Your task to perform on an android device: turn off location Image 0: 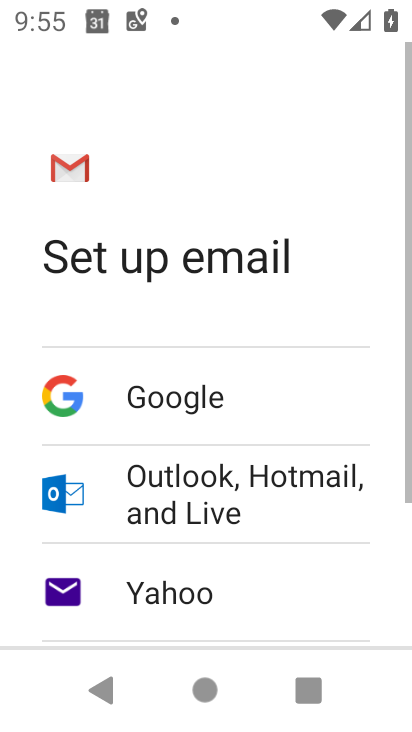
Step 0: press home button
Your task to perform on an android device: turn off location Image 1: 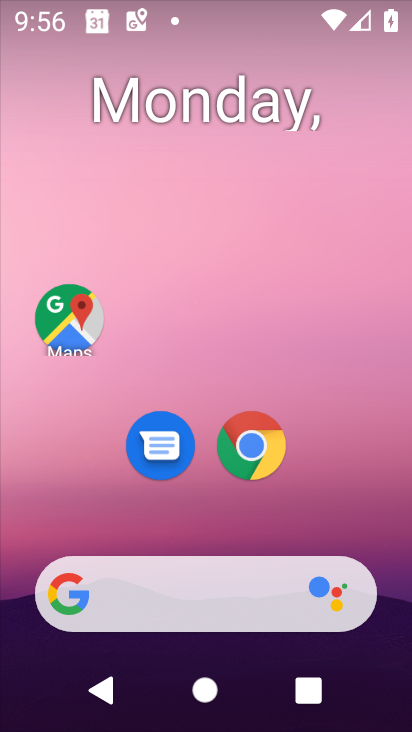
Step 1: drag from (281, 664) to (369, 131)
Your task to perform on an android device: turn off location Image 2: 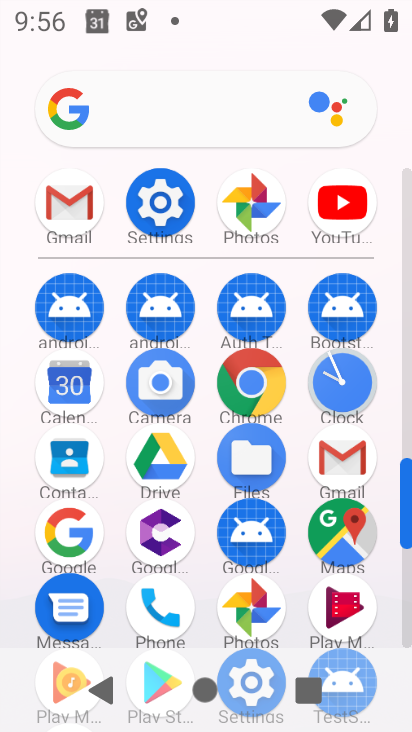
Step 2: click (146, 195)
Your task to perform on an android device: turn off location Image 3: 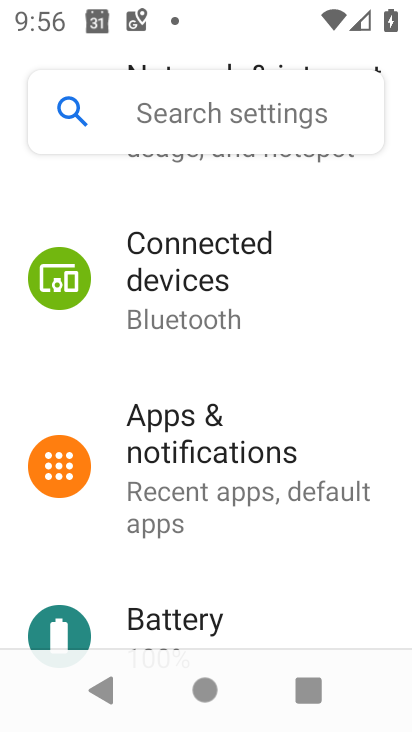
Step 3: drag from (274, 577) to (318, 19)
Your task to perform on an android device: turn off location Image 4: 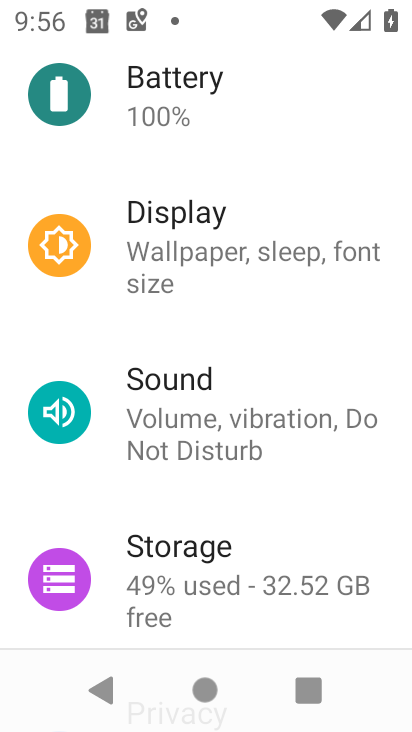
Step 4: drag from (226, 644) to (232, 55)
Your task to perform on an android device: turn off location Image 5: 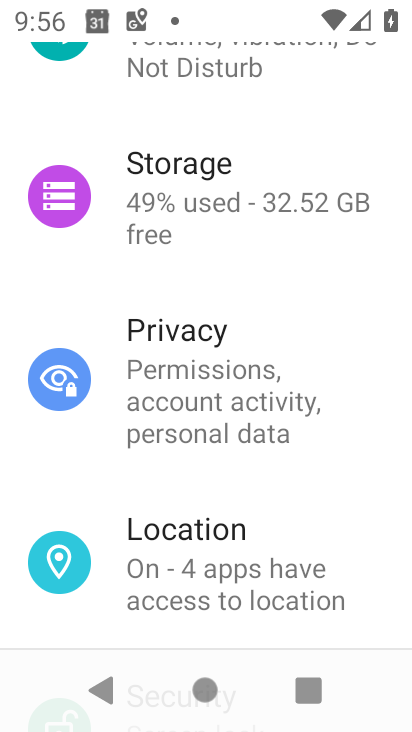
Step 5: click (246, 588)
Your task to perform on an android device: turn off location Image 6: 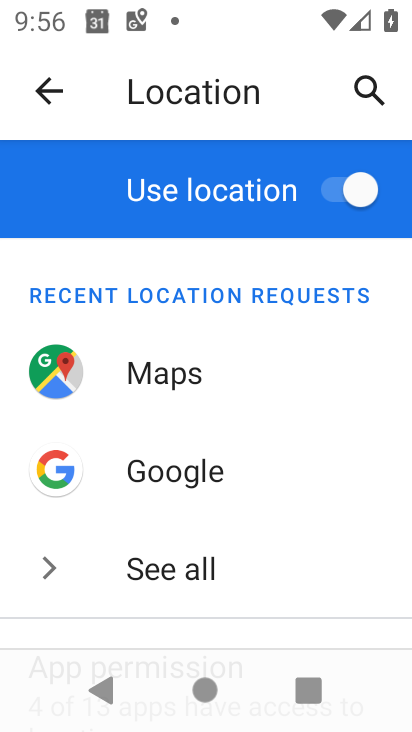
Step 6: click (366, 194)
Your task to perform on an android device: turn off location Image 7: 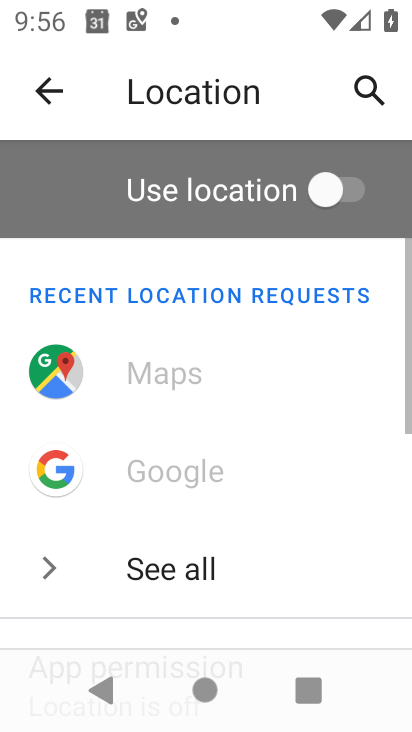
Step 7: task complete